Your task to perform on an android device: turn pop-ups on in chrome Image 0: 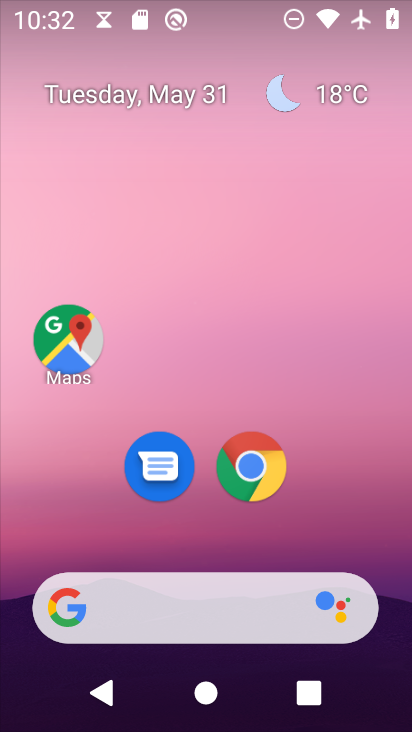
Step 0: drag from (388, 571) to (274, 33)
Your task to perform on an android device: turn pop-ups on in chrome Image 1: 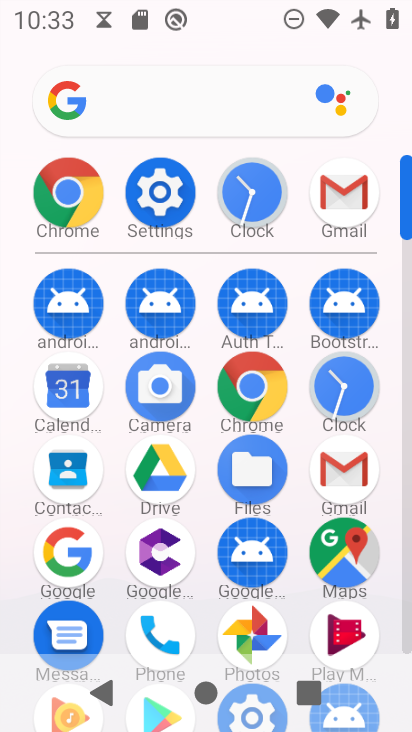
Step 1: click (69, 187)
Your task to perform on an android device: turn pop-ups on in chrome Image 2: 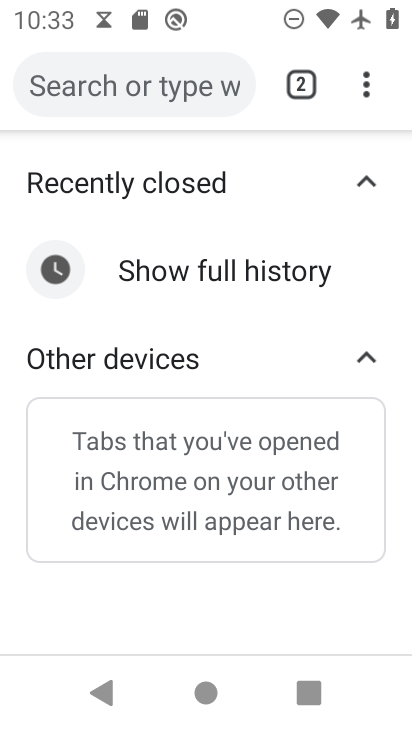
Step 2: drag from (366, 80) to (108, 503)
Your task to perform on an android device: turn pop-ups on in chrome Image 3: 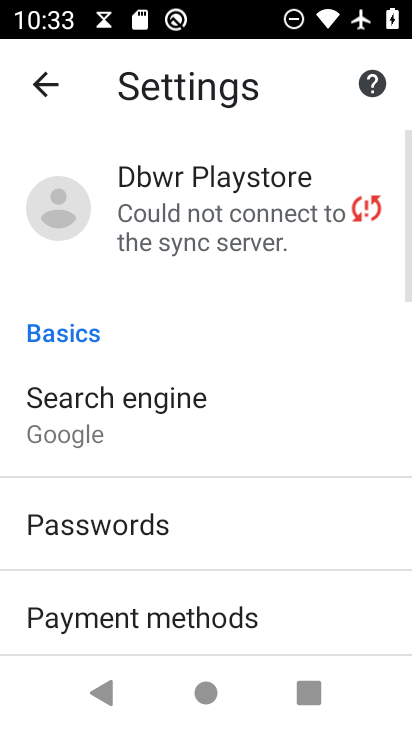
Step 3: drag from (215, 476) to (211, 171)
Your task to perform on an android device: turn pop-ups on in chrome Image 4: 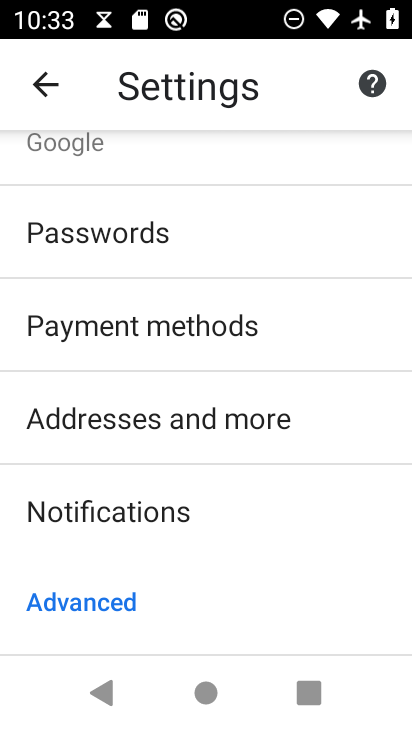
Step 4: drag from (260, 630) to (265, 127)
Your task to perform on an android device: turn pop-ups on in chrome Image 5: 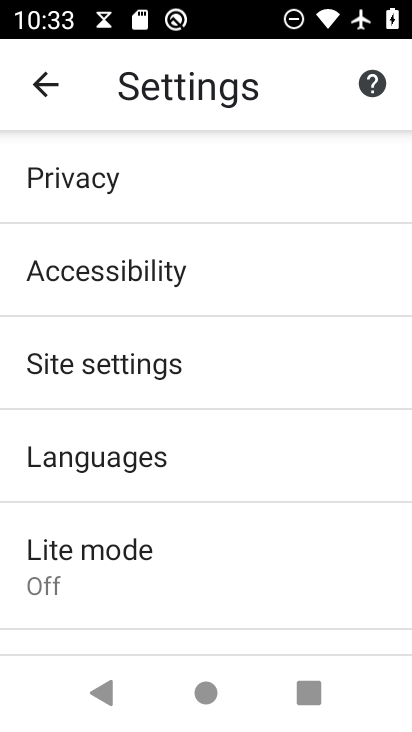
Step 5: click (163, 376)
Your task to perform on an android device: turn pop-ups on in chrome Image 6: 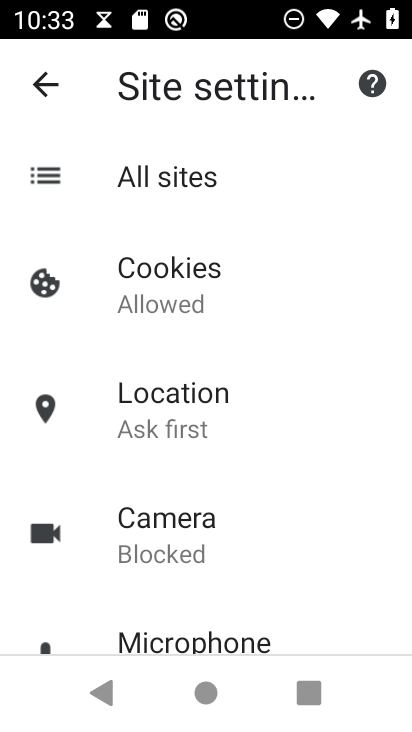
Step 6: drag from (259, 517) to (255, 158)
Your task to perform on an android device: turn pop-ups on in chrome Image 7: 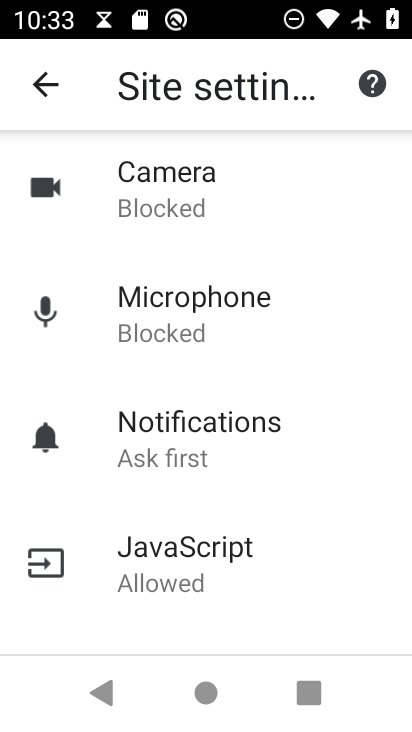
Step 7: drag from (227, 501) to (259, 158)
Your task to perform on an android device: turn pop-ups on in chrome Image 8: 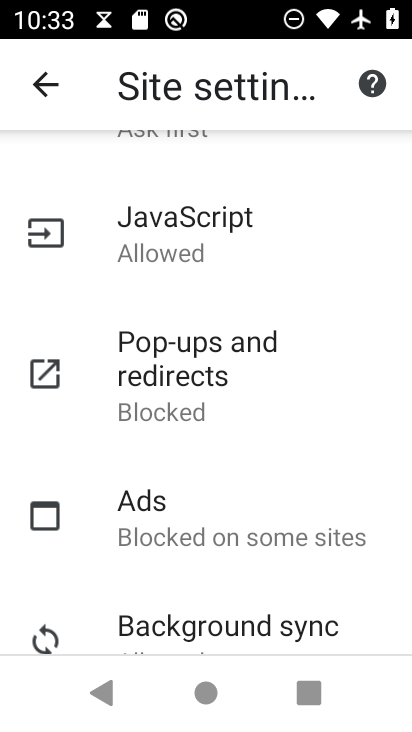
Step 8: click (194, 371)
Your task to perform on an android device: turn pop-ups on in chrome Image 9: 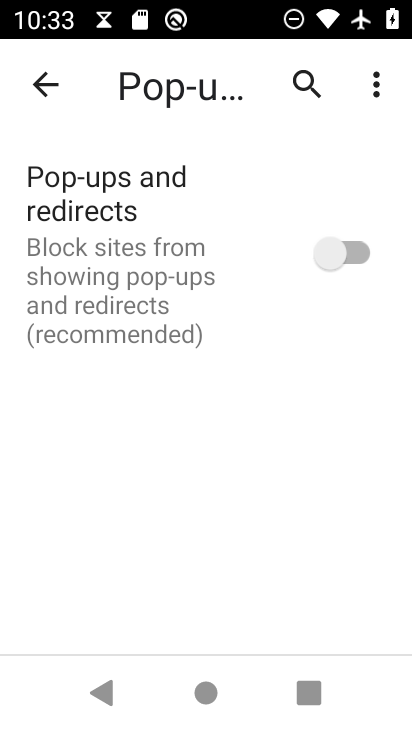
Step 9: click (340, 254)
Your task to perform on an android device: turn pop-ups on in chrome Image 10: 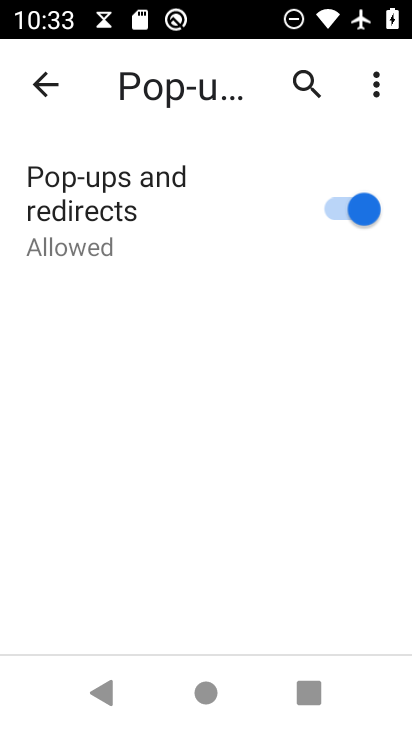
Step 10: task complete